Your task to perform on an android device: Search for a new lawnmower on Lowes.com Image 0: 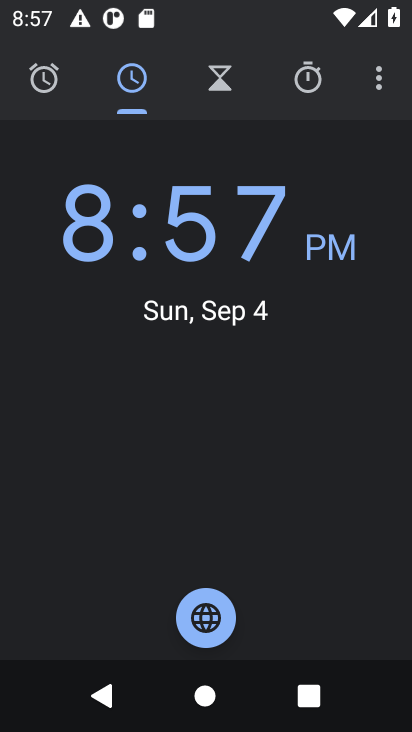
Step 0: task complete